Your task to perform on an android device: toggle data saver in the chrome app Image 0: 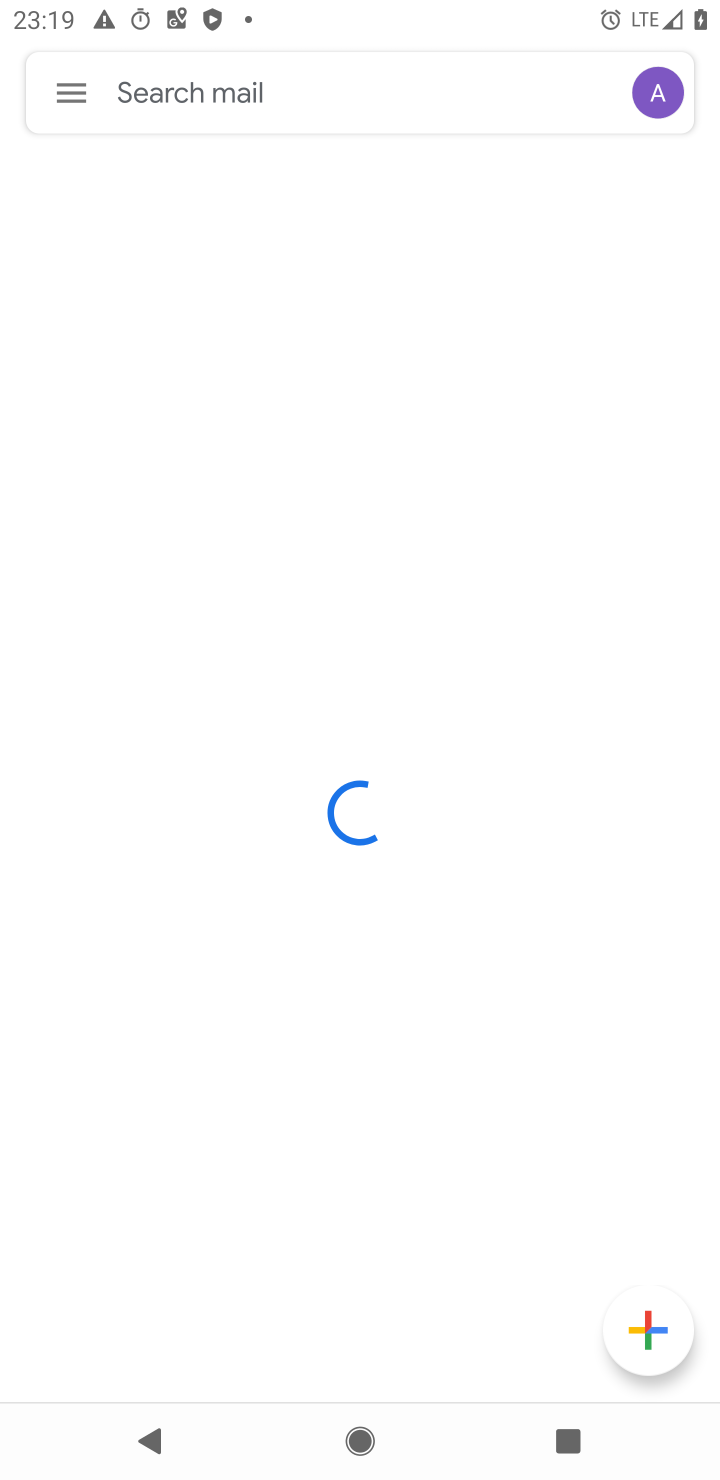
Step 0: press home button
Your task to perform on an android device: toggle data saver in the chrome app Image 1: 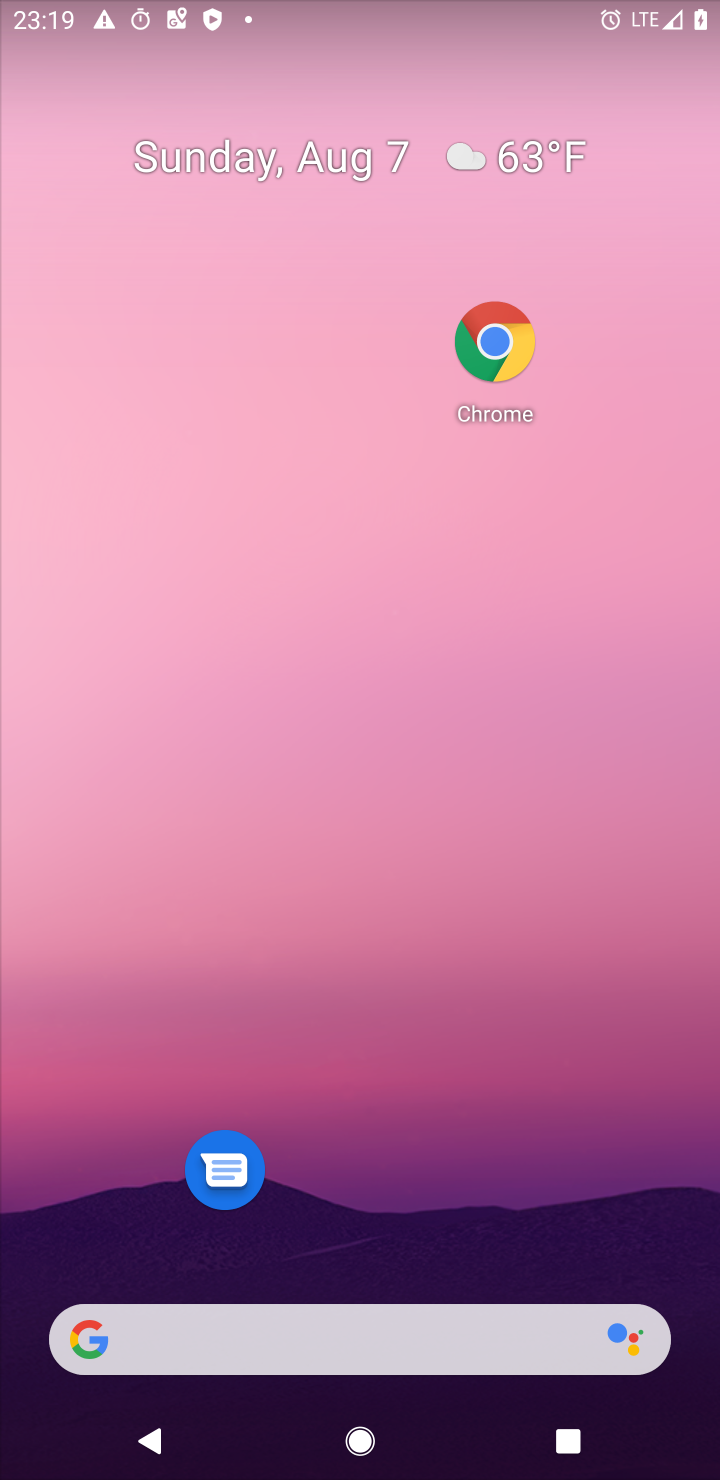
Step 1: drag from (378, 1327) to (182, 510)
Your task to perform on an android device: toggle data saver in the chrome app Image 2: 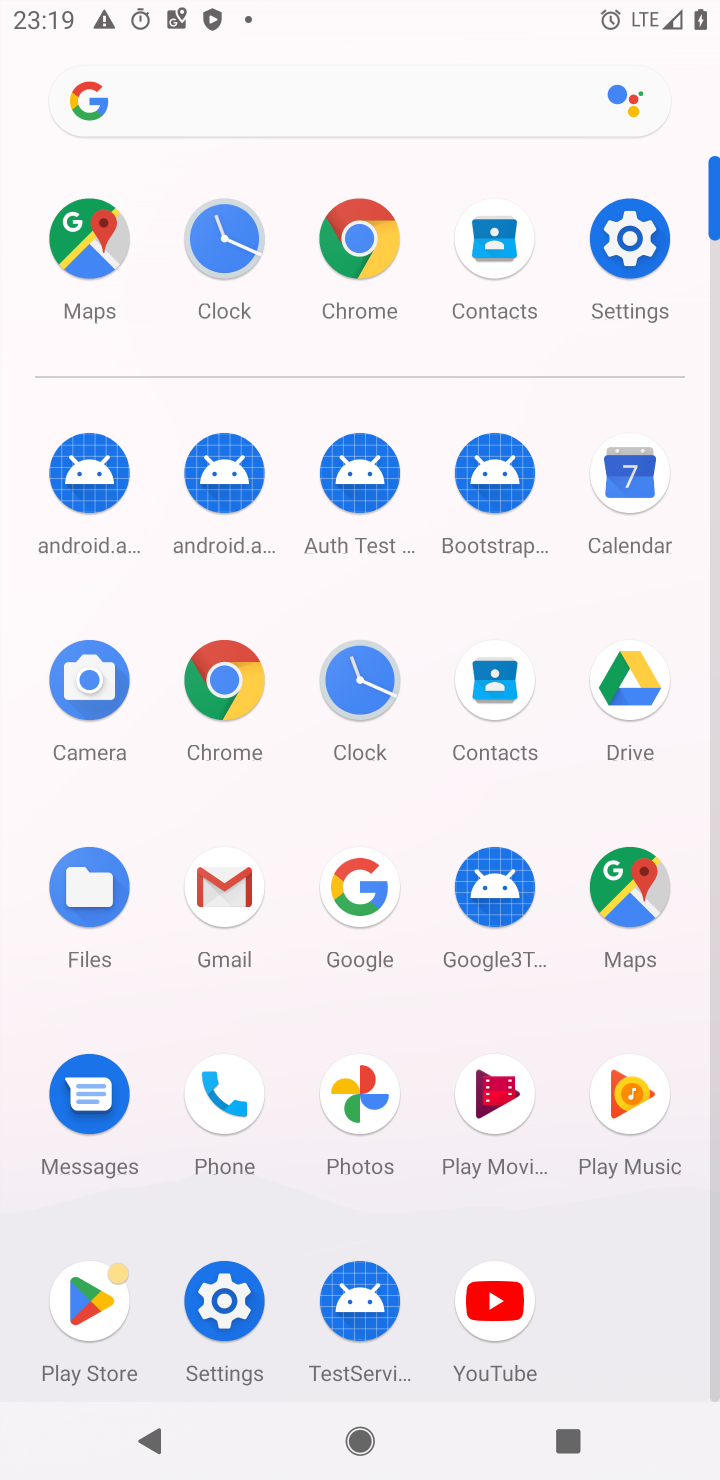
Step 2: click (223, 681)
Your task to perform on an android device: toggle data saver in the chrome app Image 3: 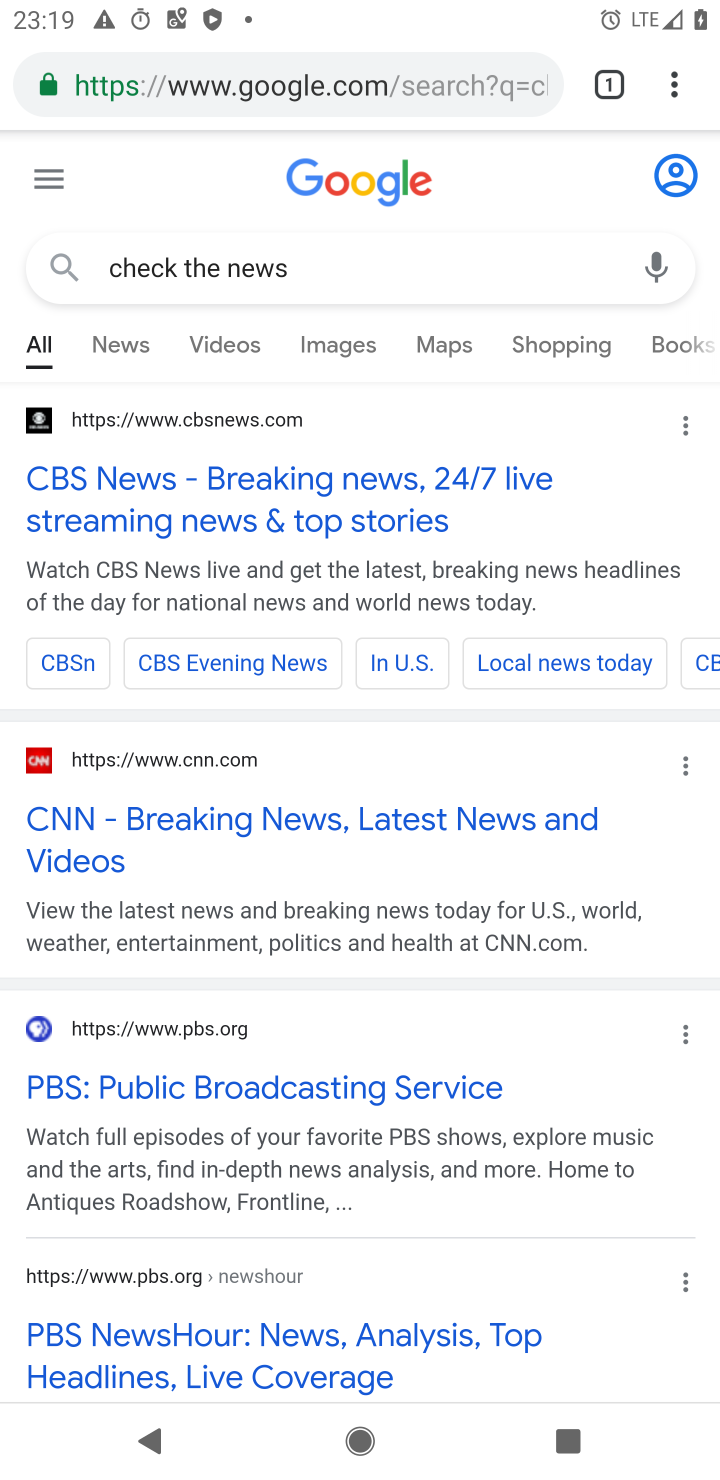
Step 3: drag from (673, 70) to (523, 954)
Your task to perform on an android device: toggle data saver in the chrome app Image 4: 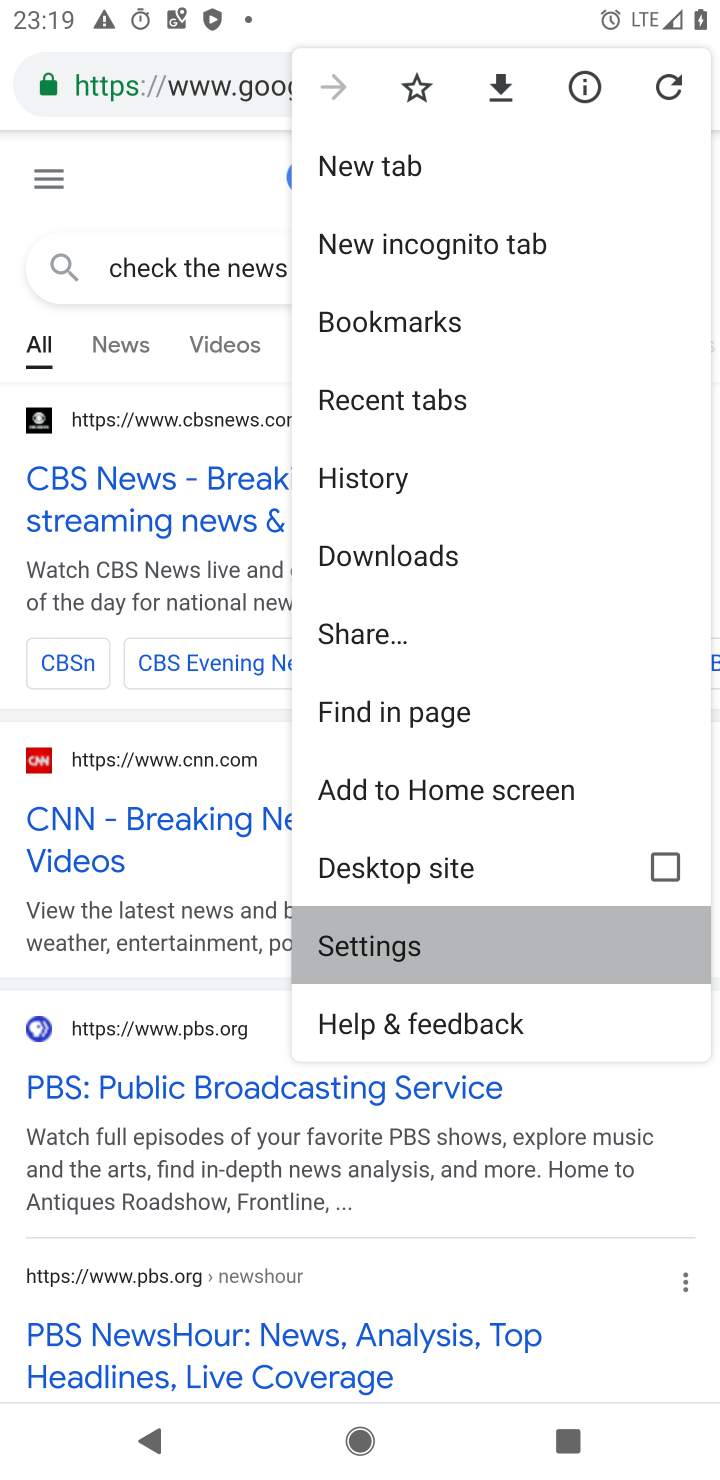
Step 4: click (523, 954)
Your task to perform on an android device: toggle data saver in the chrome app Image 5: 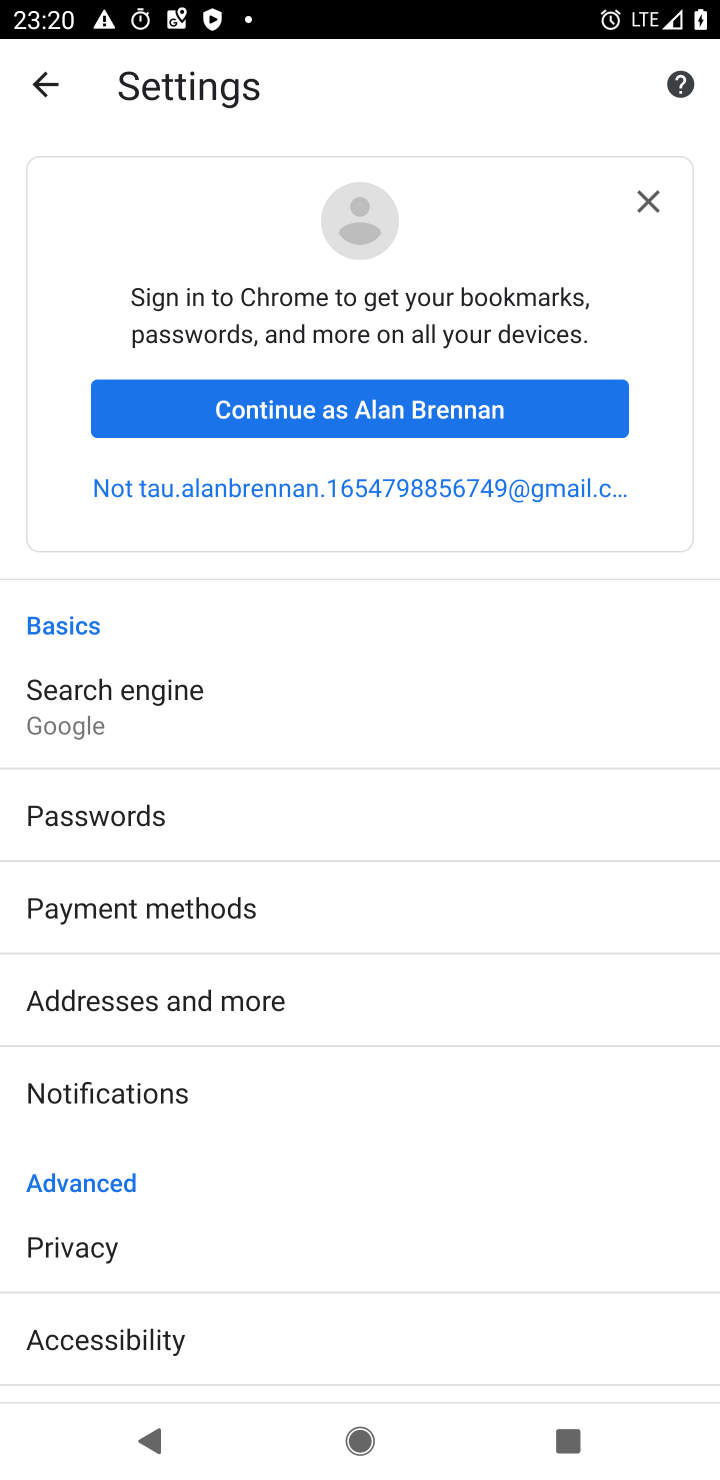
Step 5: drag from (619, 1206) to (464, 459)
Your task to perform on an android device: toggle data saver in the chrome app Image 6: 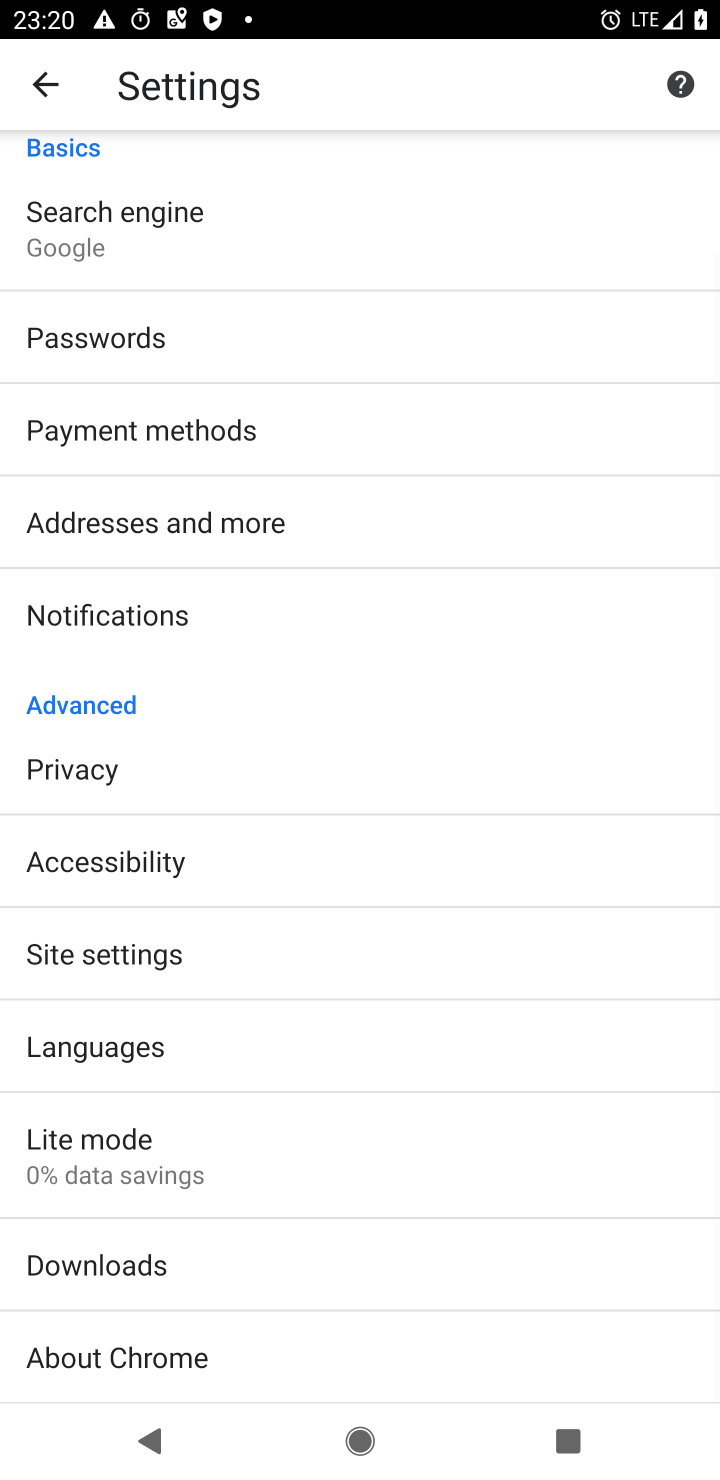
Step 6: click (218, 1160)
Your task to perform on an android device: toggle data saver in the chrome app Image 7: 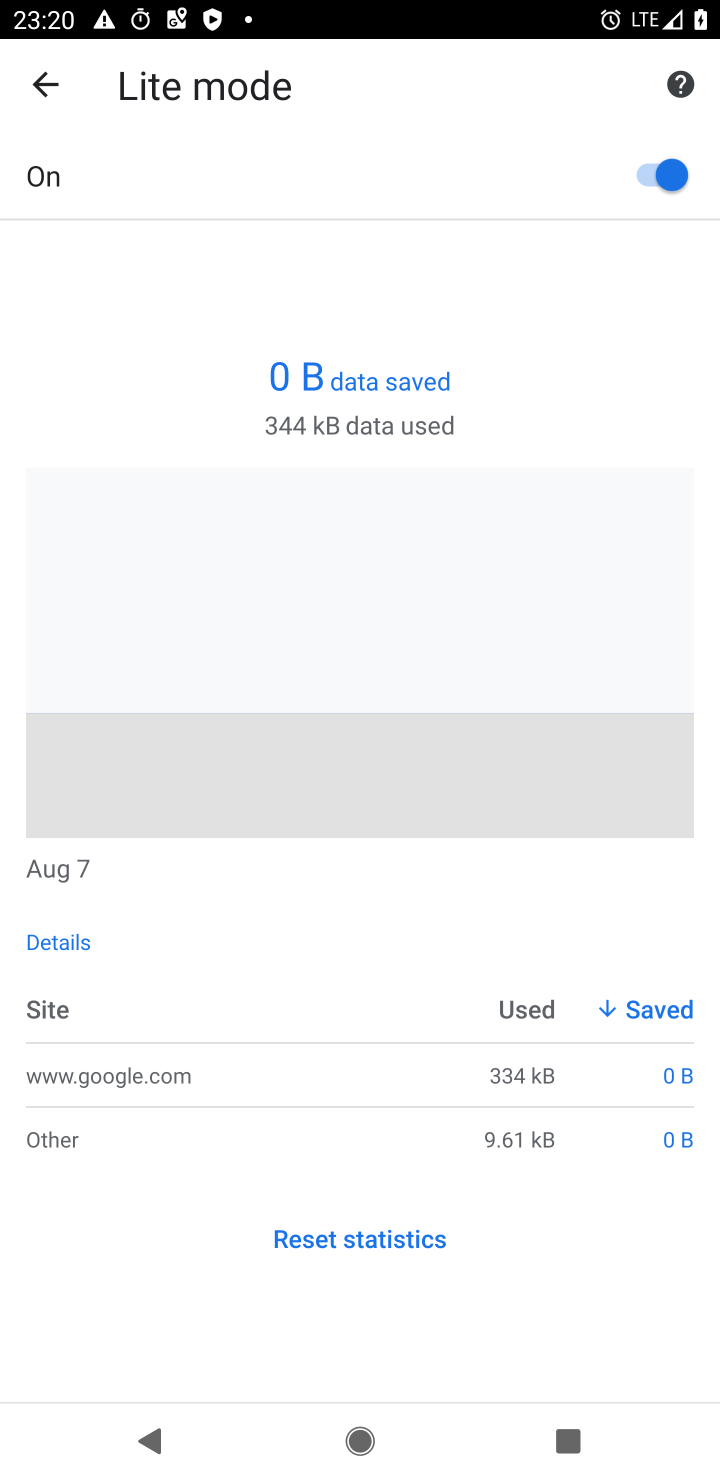
Step 7: click (664, 165)
Your task to perform on an android device: toggle data saver in the chrome app Image 8: 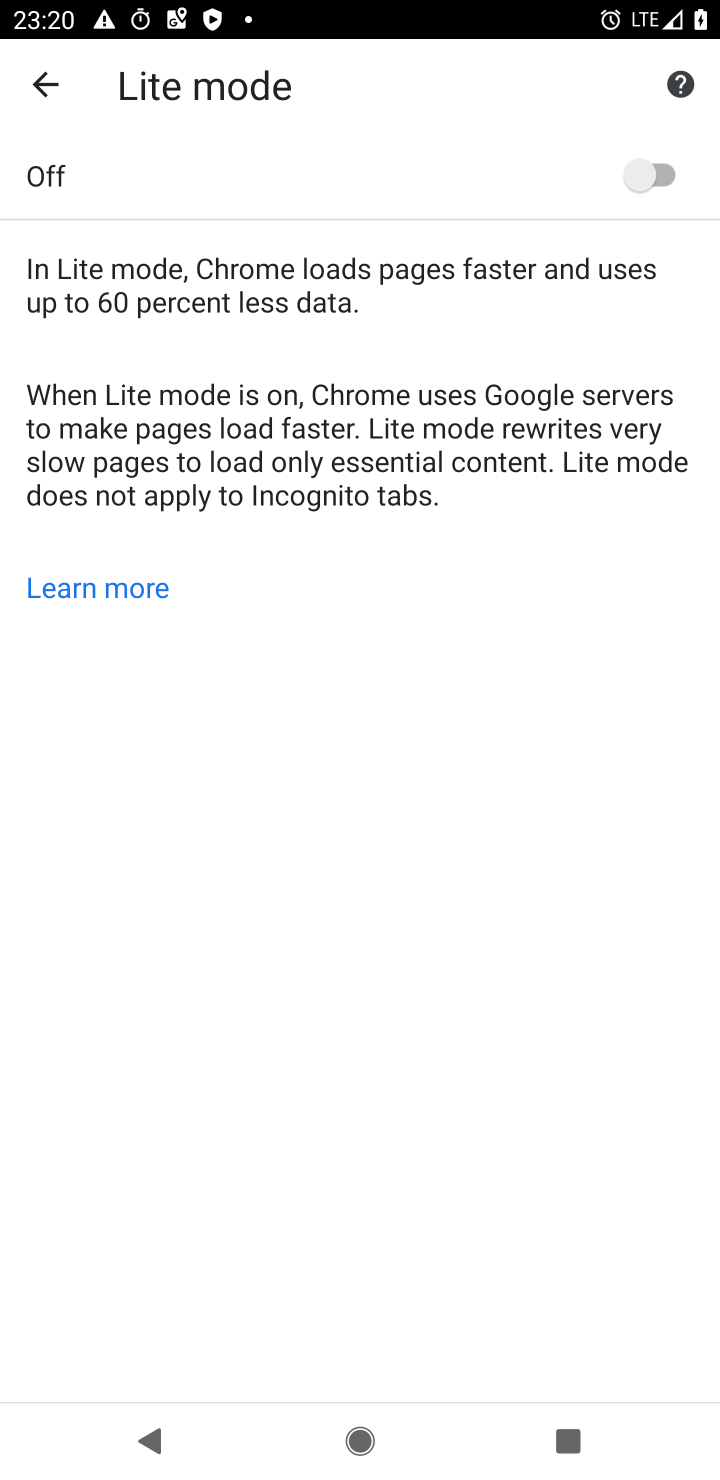
Step 8: task complete